Your task to perform on an android device: Clear the shopping cart on amazon. Search for jbl charge 4 on amazon, select the first entry, and add it to the cart. Image 0: 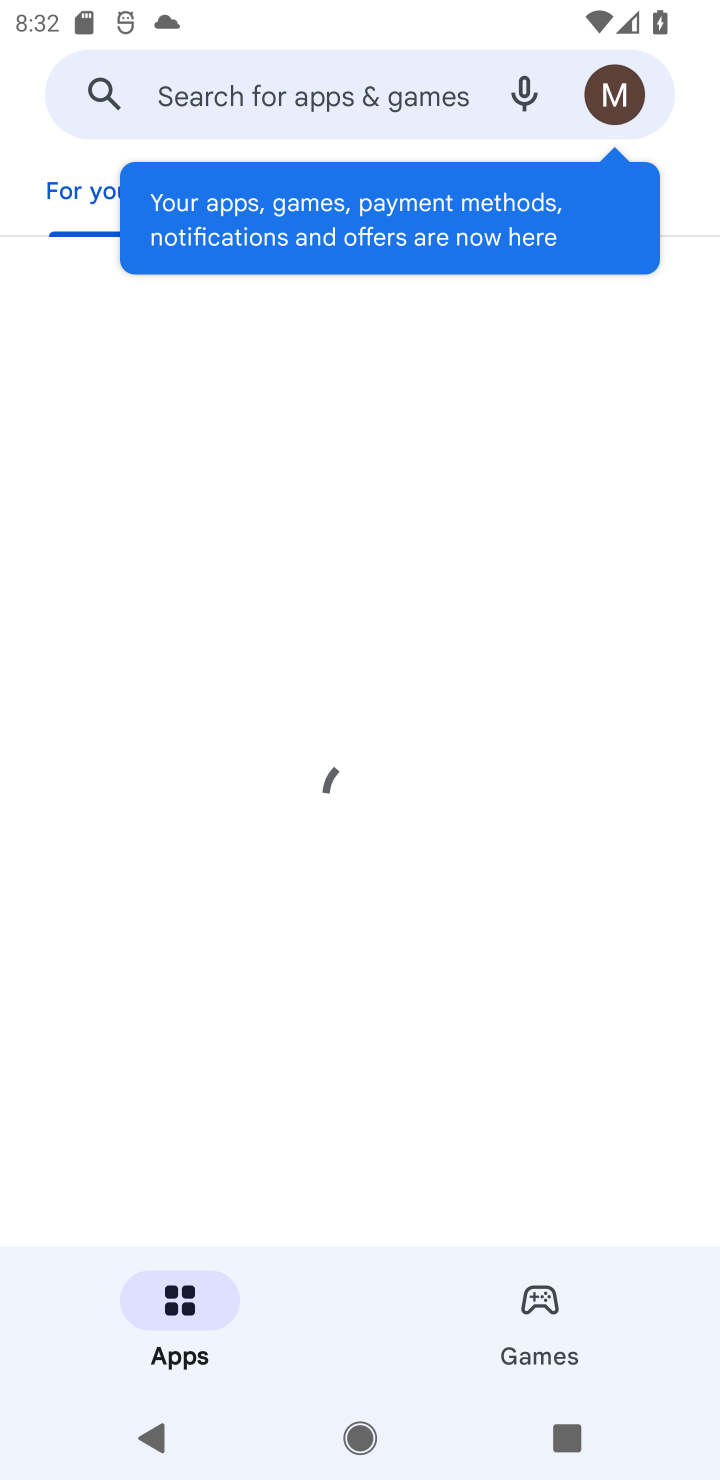
Step 0: press home button
Your task to perform on an android device: Clear the shopping cart on amazon. Search for jbl charge 4 on amazon, select the first entry, and add it to the cart. Image 1: 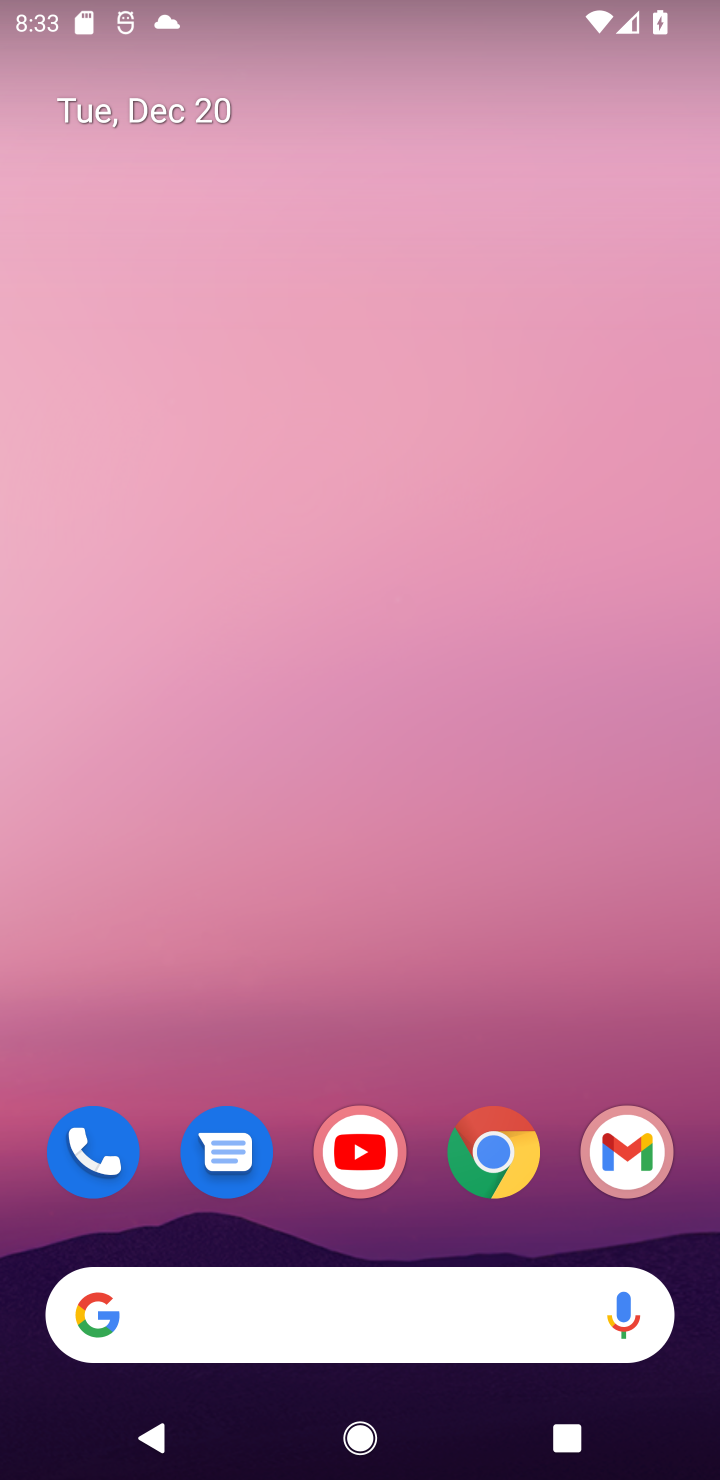
Step 1: click (511, 1152)
Your task to perform on an android device: Clear the shopping cart on amazon. Search for jbl charge 4 on amazon, select the first entry, and add it to the cart. Image 2: 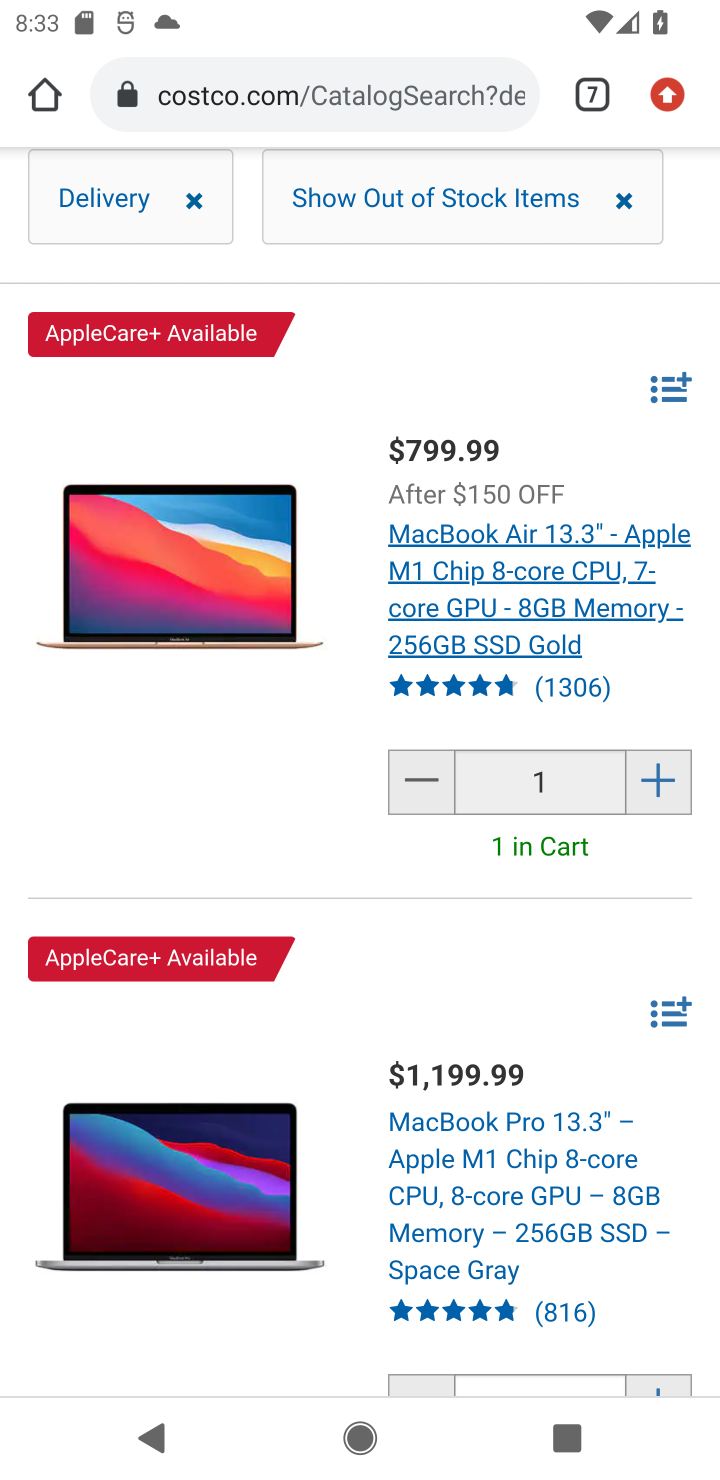
Step 2: click (603, 99)
Your task to perform on an android device: Clear the shopping cart on amazon. Search for jbl charge 4 on amazon, select the first entry, and add it to the cart. Image 3: 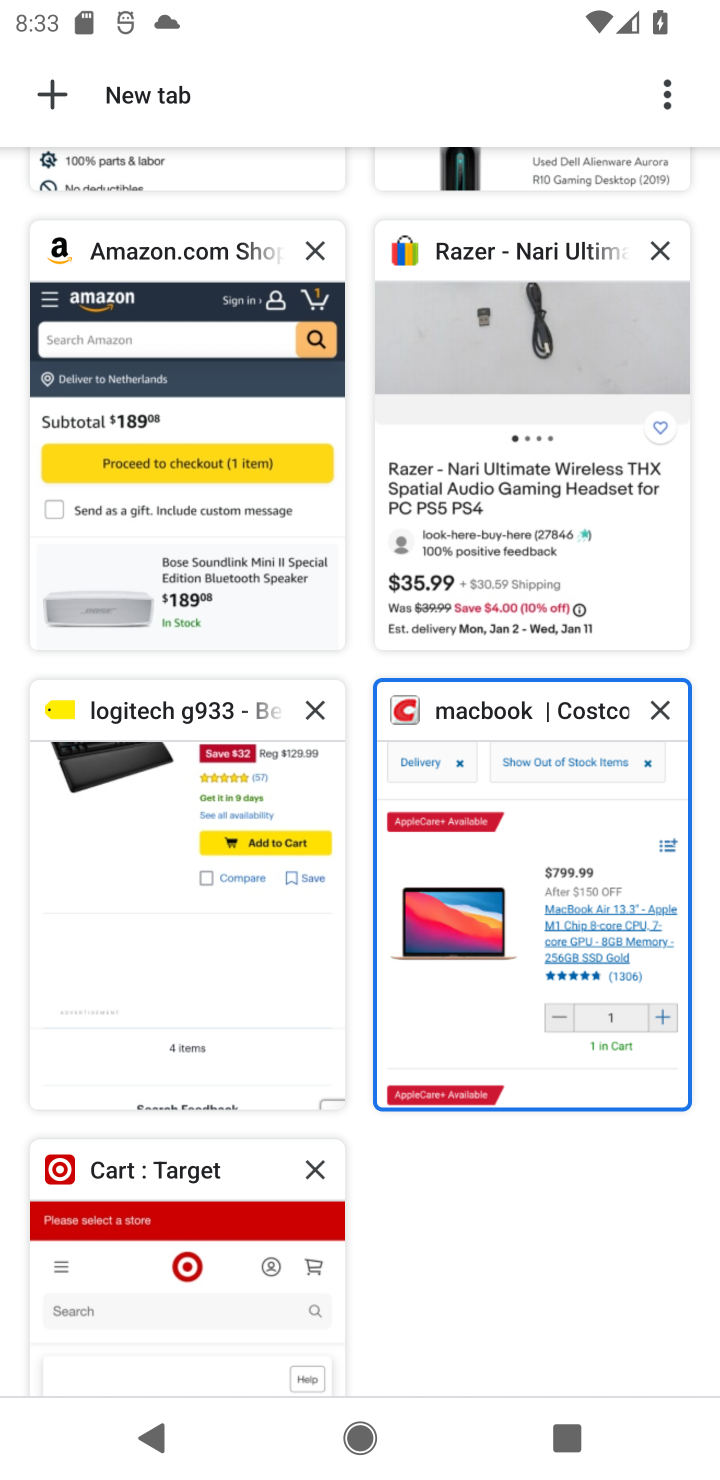
Step 3: click (177, 335)
Your task to perform on an android device: Clear the shopping cart on amazon. Search for jbl charge 4 on amazon, select the first entry, and add it to the cart. Image 4: 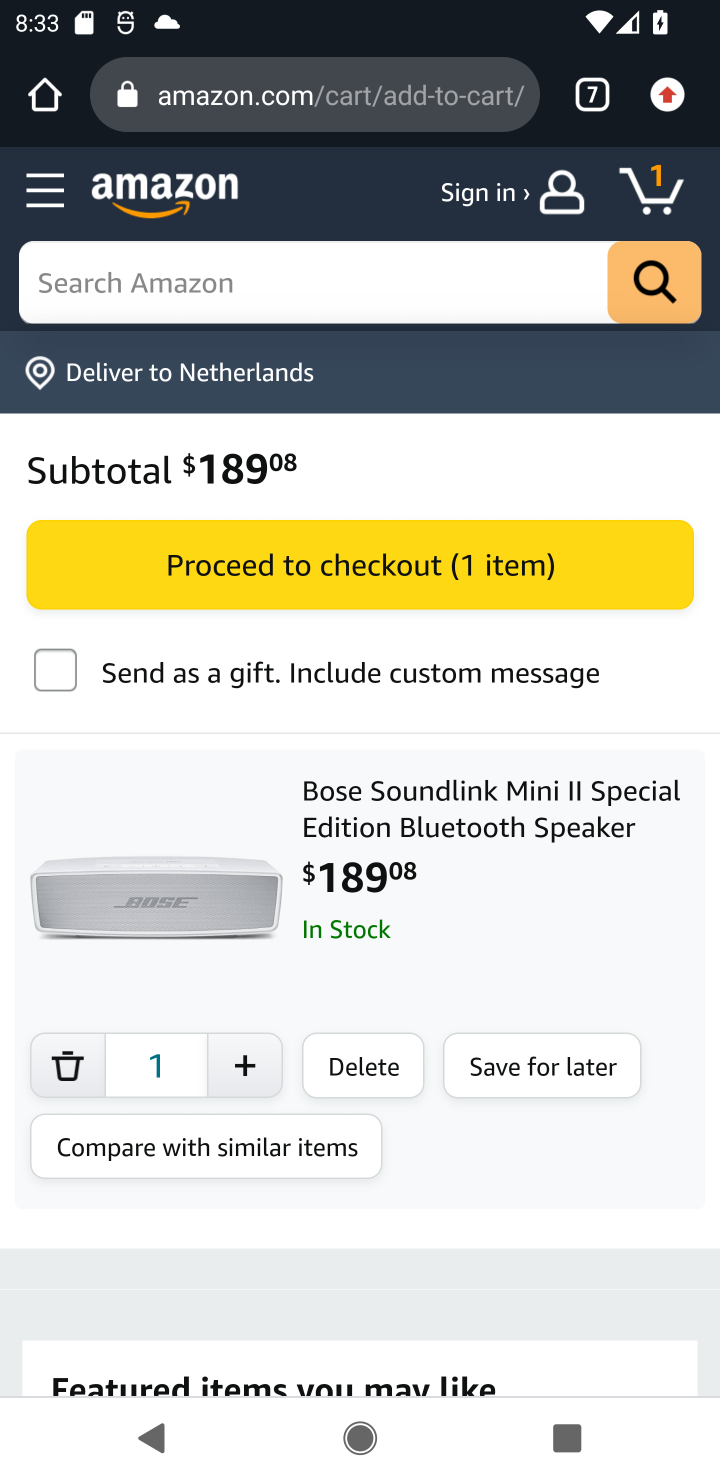
Step 4: click (111, 269)
Your task to perform on an android device: Clear the shopping cart on amazon. Search for jbl charge 4 on amazon, select the first entry, and add it to the cart. Image 5: 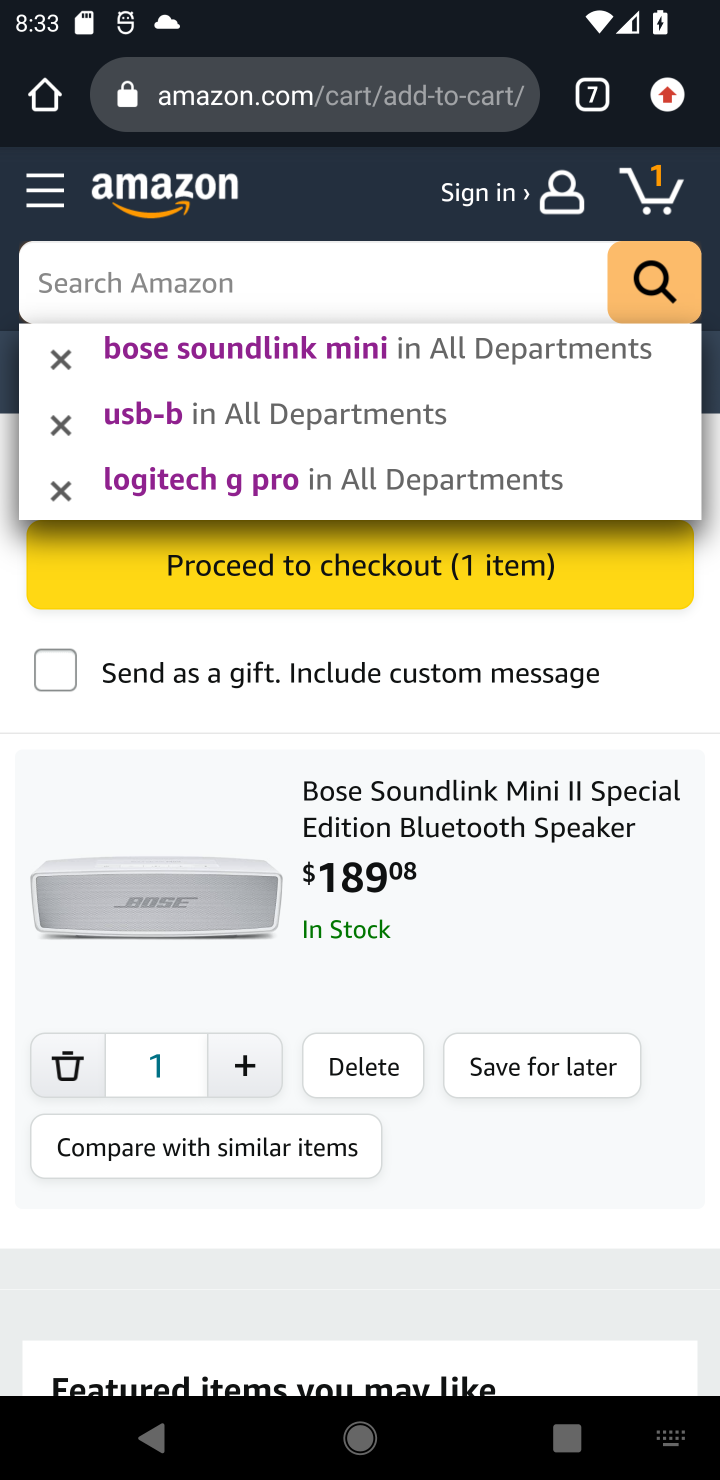
Step 5: type " jbl charge 4 "
Your task to perform on an android device: Clear the shopping cart on amazon. Search for jbl charge 4 on amazon, select the first entry, and add it to the cart. Image 6: 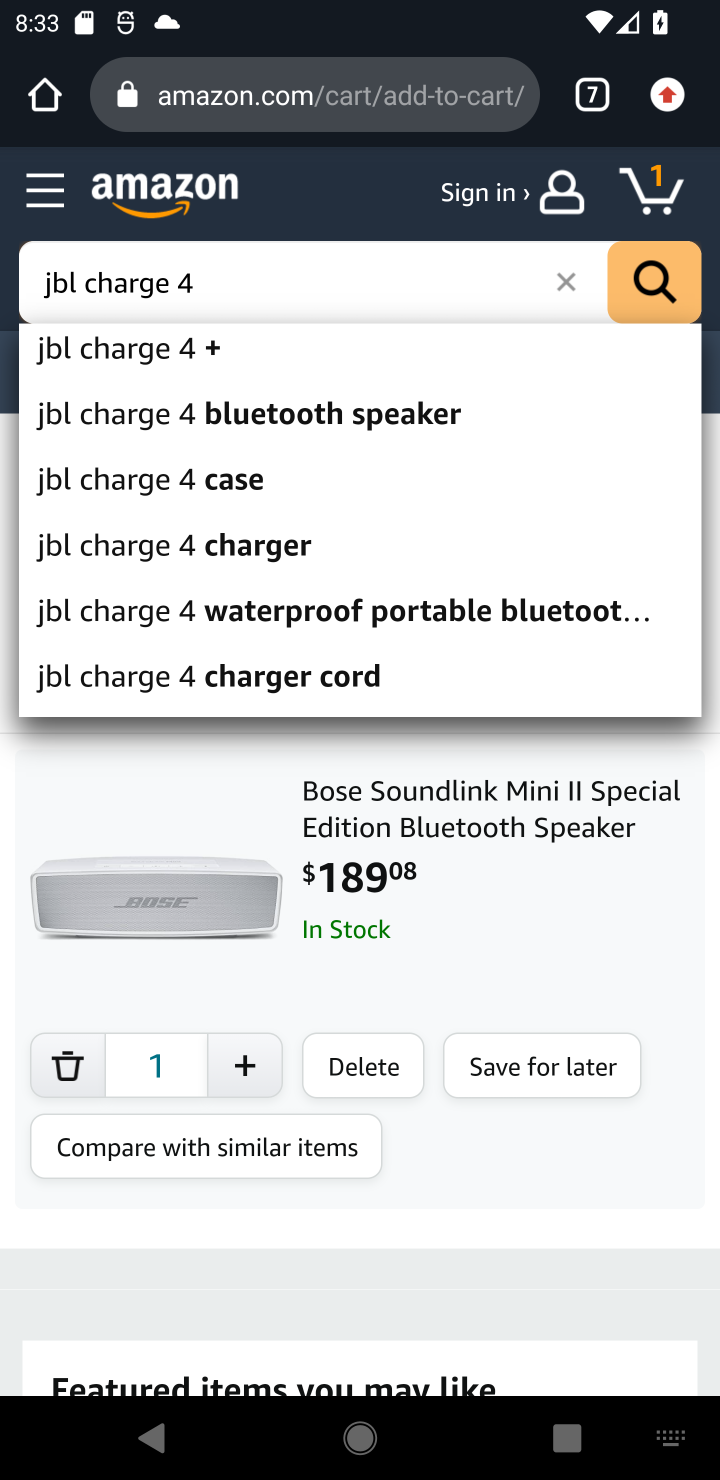
Step 6: click (137, 347)
Your task to perform on an android device: Clear the shopping cart on amazon. Search for jbl charge 4 on amazon, select the first entry, and add it to the cart. Image 7: 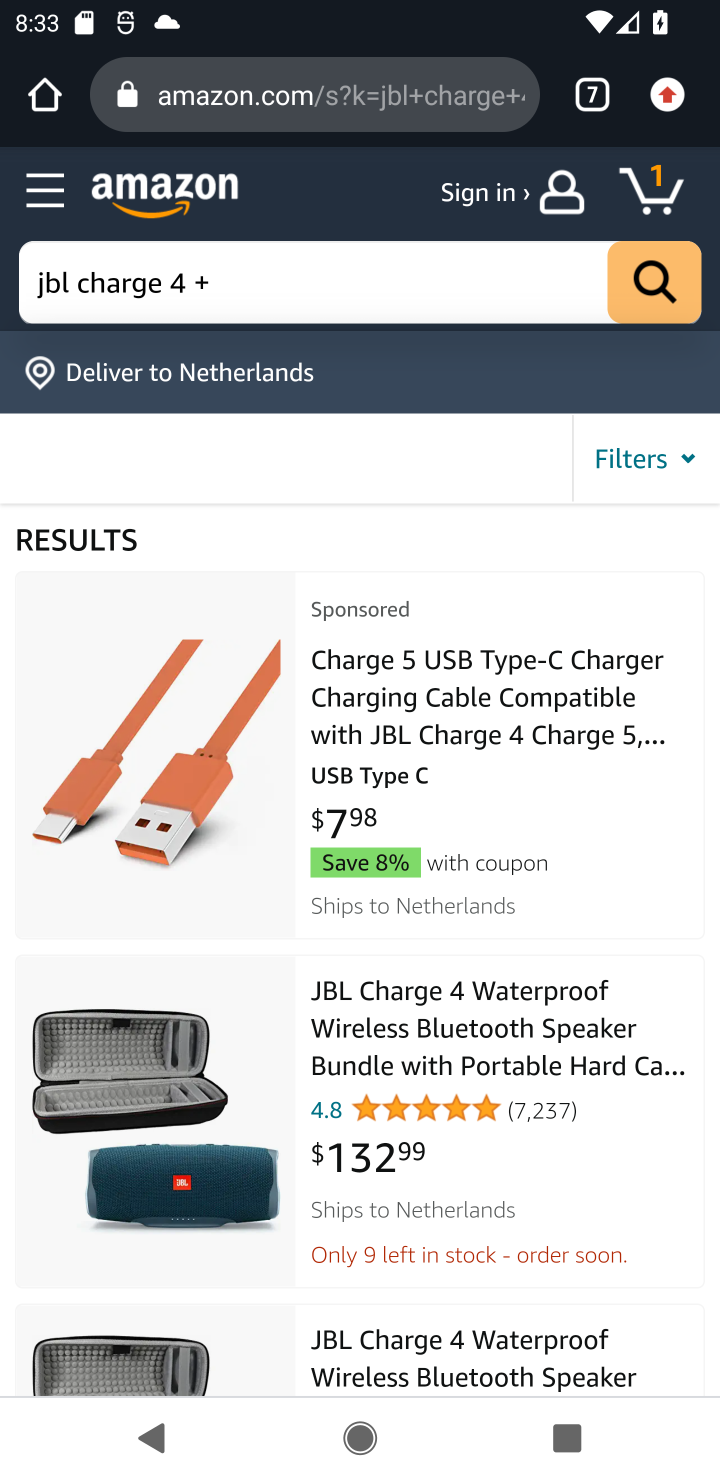
Step 7: click (523, 1015)
Your task to perform on an android device: Clear the shopping cart on amazon. Search for jbl charge 4 on amazon, select the first entry, and add it to the cart. Image 8: 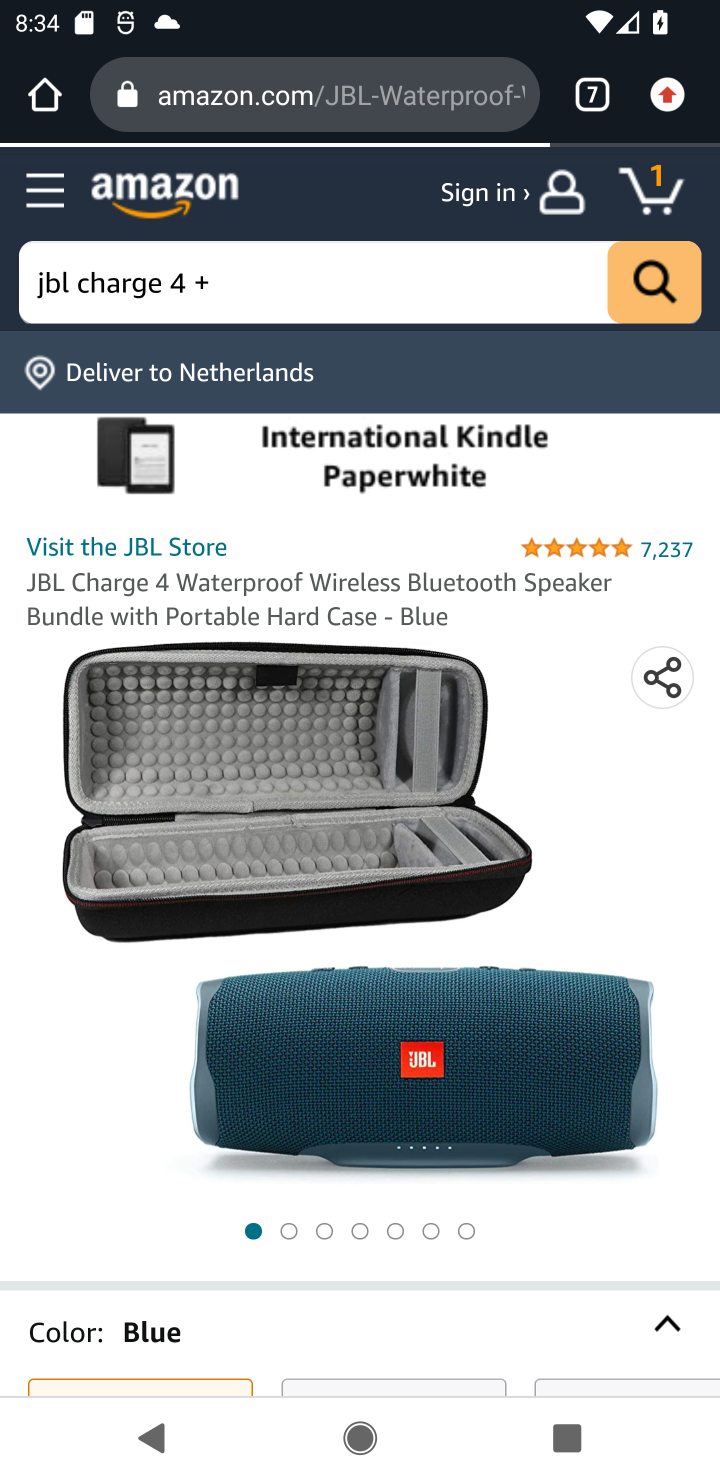
Step 8: drag from (389, 1193) to (378, 259)
Your task to perform on an android device: Clear the shopping cart on amazon. Search for jbl charge 4 on amazon, select the first entry, and add it to the cart. Image 9: 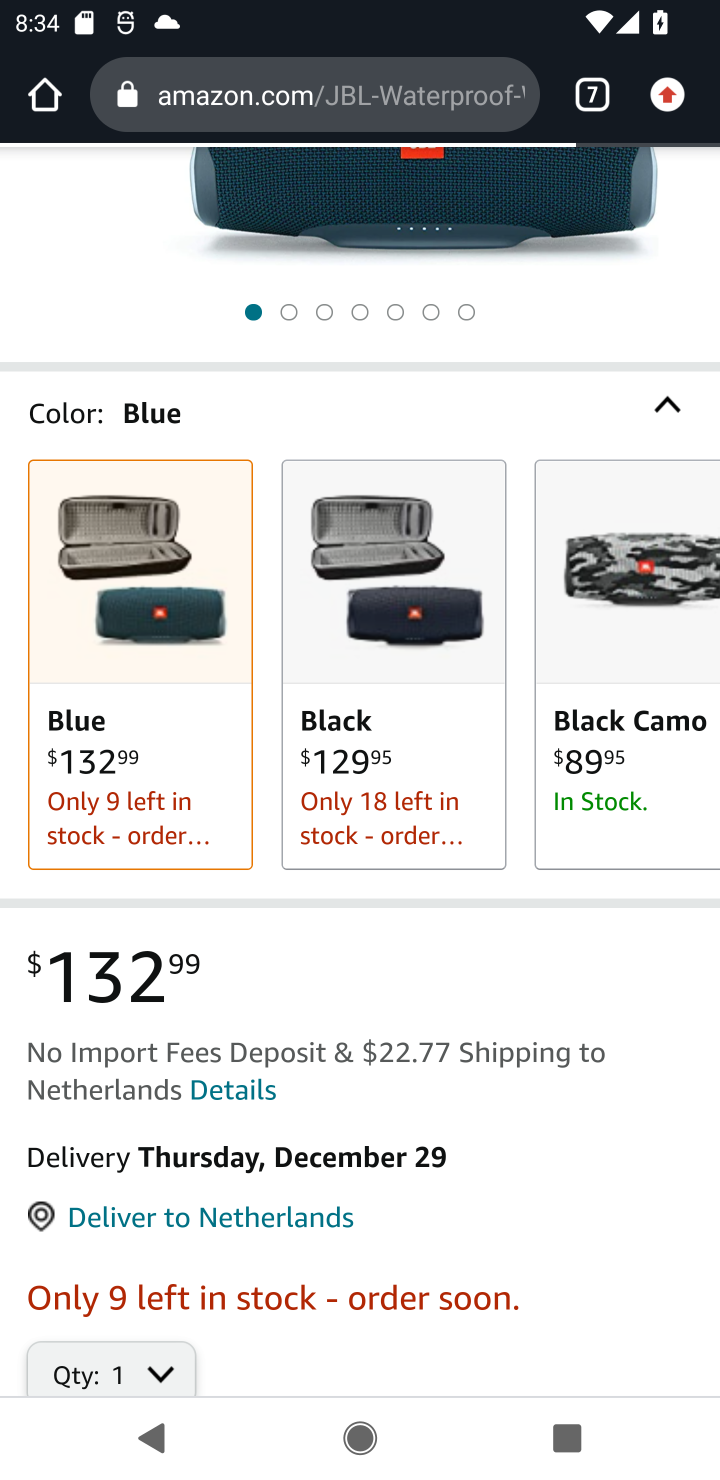
Step 9: click (361, 857)
Your task to perform on an android device: Clear the shopping cart on amazon. Search for jbl charge 4 on amazon, select the first entry, and add it to the cart. Image 10: 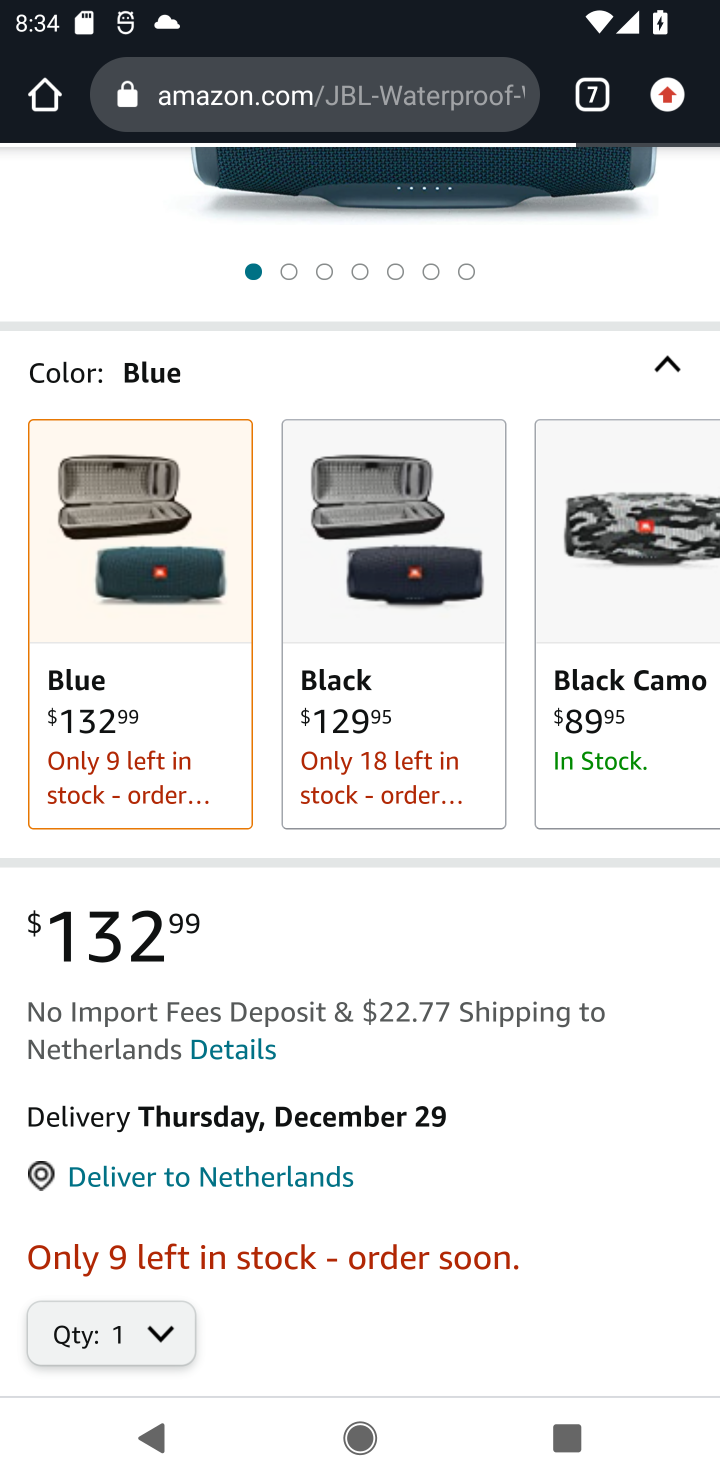
Step 10: drag from (420, 1131) to (519, 419)
Your task to perform on an android device: Clear the shopping cart on amazon. Search for jbl charge 4 on amazon, select the first entry, and add it to the cart. Image 11: 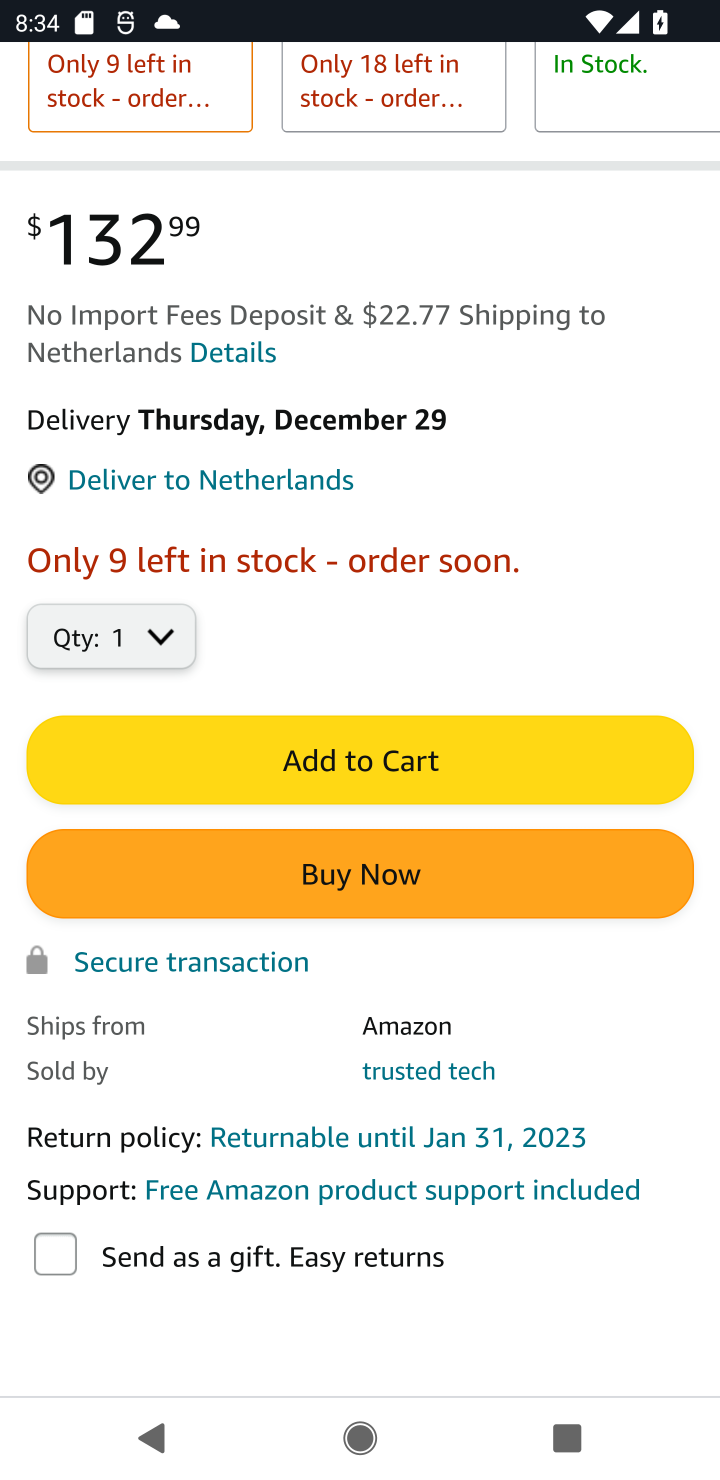
Step 11: click (508, 759)
Your task to perform on an android device: Clear the shopping cart on amazon. Search for jbl charge 4 on amazon, select the first entry, and add it to the cart. Image 12: 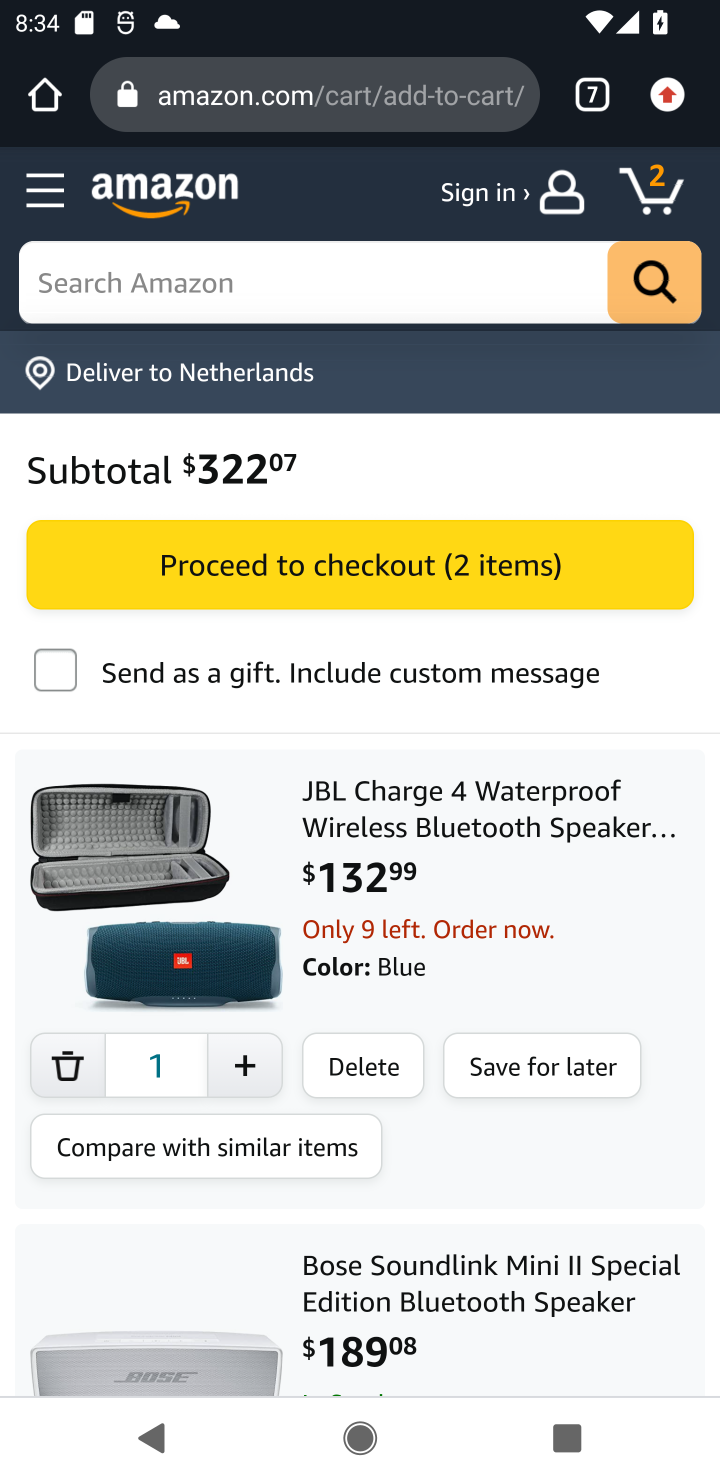
Step 12: task complete